Your task to perform on an android device: Is it going to rain tomorrow? Image 0: 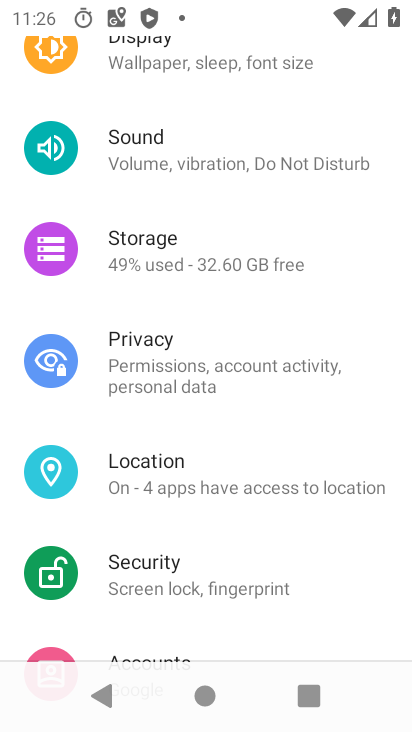
Step 0: press home button
Your task to perform on an android device: Is it going to rain tomorrow? Image 1: 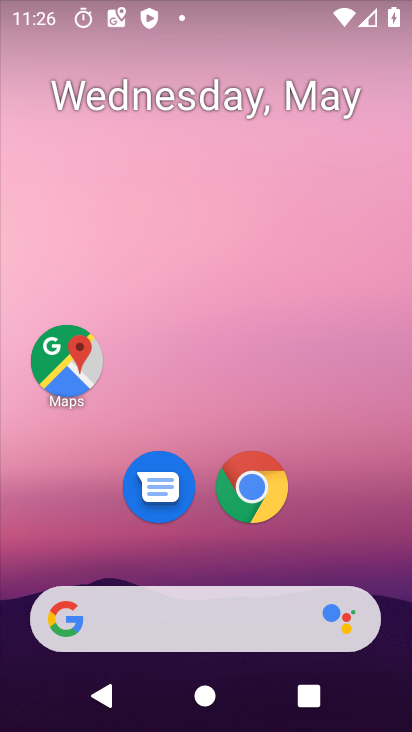
Step 1: drag from (36, 396) to (280, 358)
Your task to perform on an android device: Is it going to rain tomorrow? Image 2: 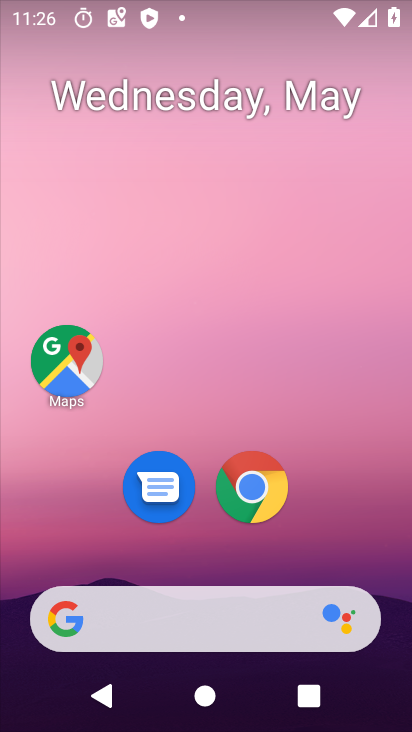
Step 2: drag from (35, 272) to (379, 222)
Your task to perform on an android device: Is it going to rain tomorrow? Image 3: 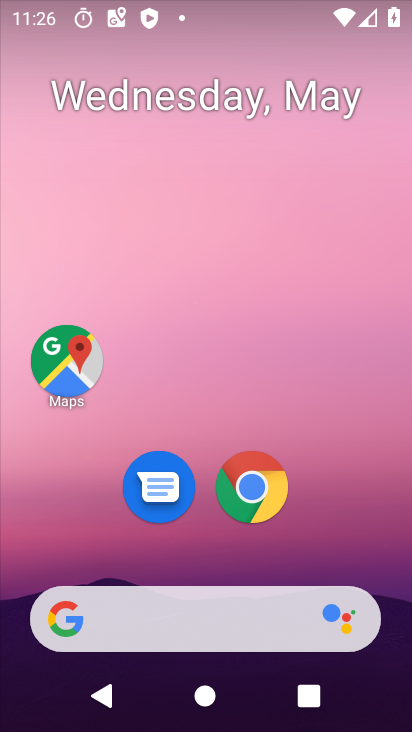
Step 3: drag from (55, 213) to (410, 151)
Your task to perform on an android device: Is it going to rain tomorrow? Image 4: 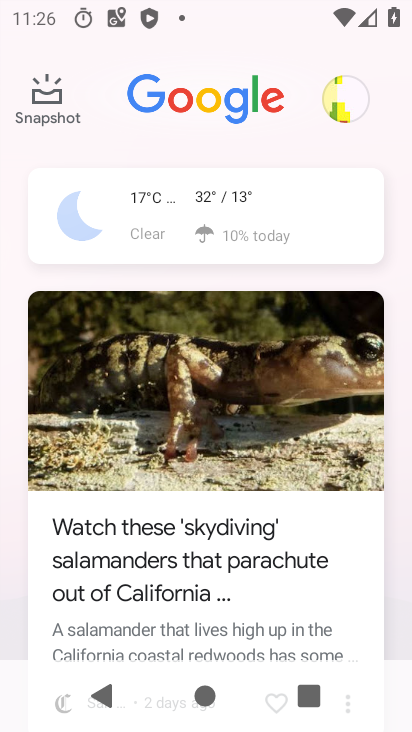
Step 4: click (186, 215)
Your task to perform on an android device: Is it going to rain tomorrow? Image 5: 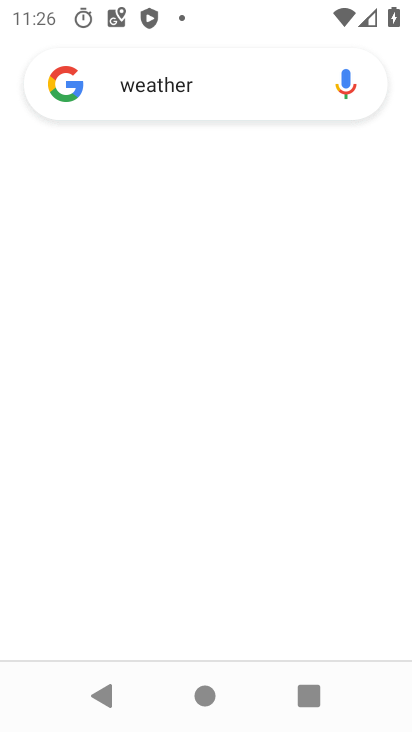
Step 5: task complete